Your task to perform on an android device: turn off notifications settings in the gmail app Image 0: 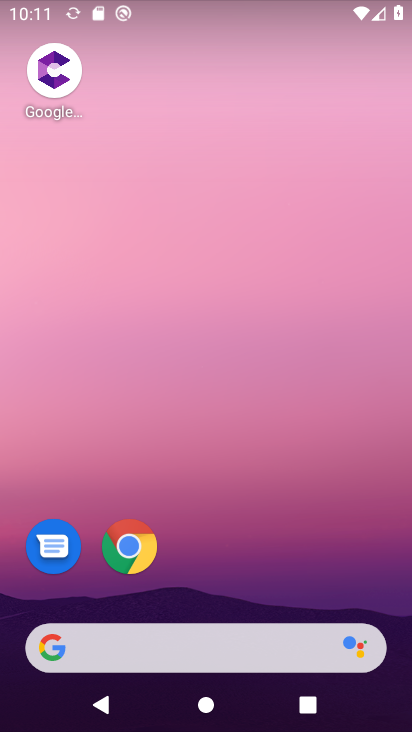
Step 0: drag from (397, 646) to (345, 126)
Your task to perform on an android device: turn off notifications settings in the gmail app Image 1: 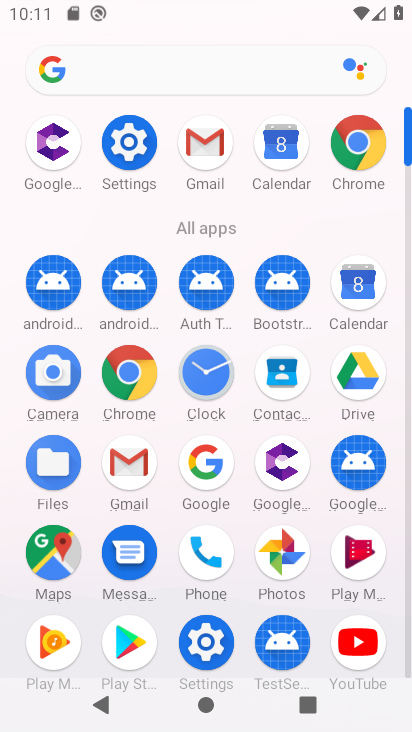
Step 1: click (407, 660)
Your task to perform on an android device: turn off notifications settings in the gmail app Image 2: 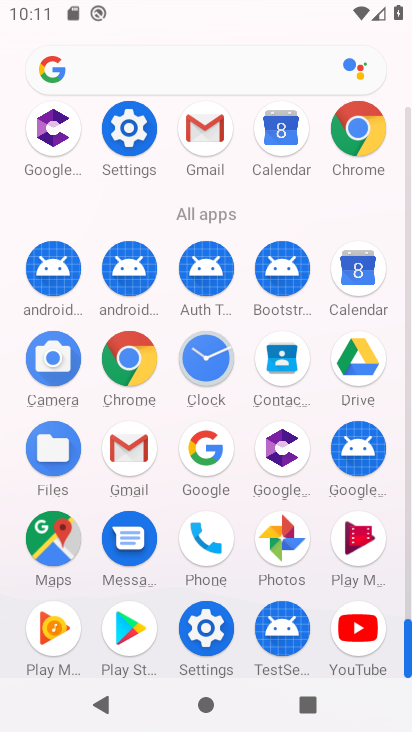
Step 2: click (126, 445)
Your task to perform on an android device: turn off notifications settings in the gmail app Image 3: 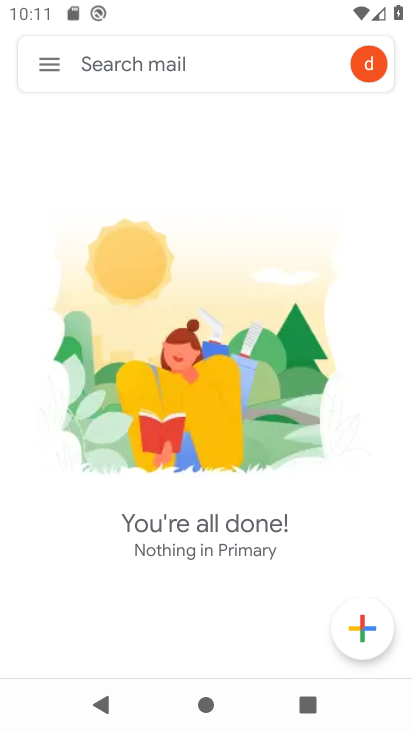
Step 3: click (47, 59)
Your task to perform on an android device: turn off notifications settings in the gmail app Image 4: 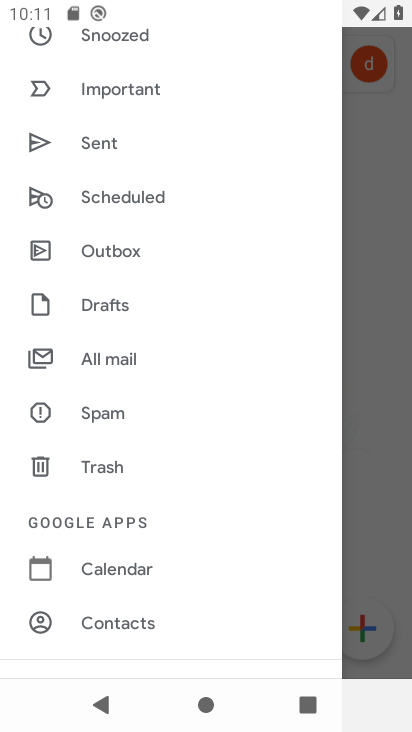
Step 4: drag from (258, 203) to (171, 493)
Your task to perform on an android device: turn off notifications settings in the gmail app Image 5: 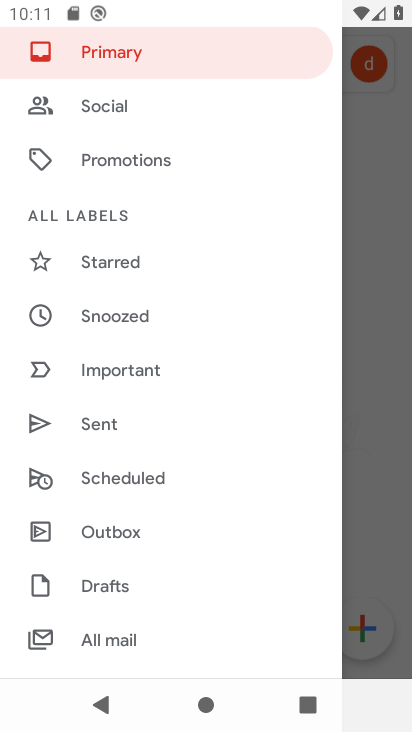
Step 5: drag from (171, 493) to (217, 64)
Your task to perform on an android device: turn off notifications settings in the gmail app Image 6: 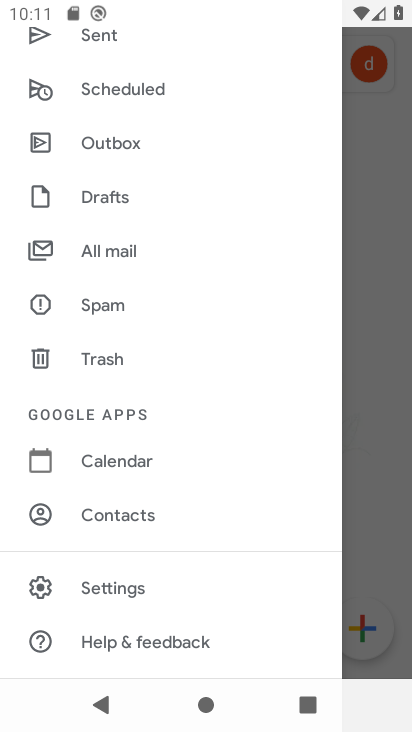
Step 6: click (107, 593)
Your task to perform on an android device: turn off notifications settings in the gmail app Image 7: 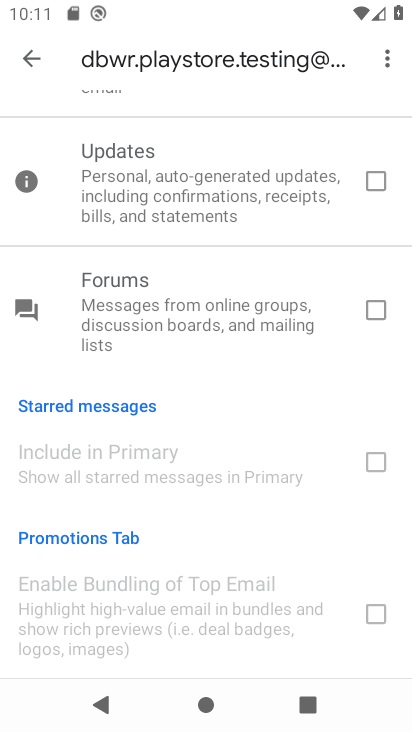
Step 7: press back button
Your task to perform on an android device: turn off notifications settings in the gmail app Image 8: 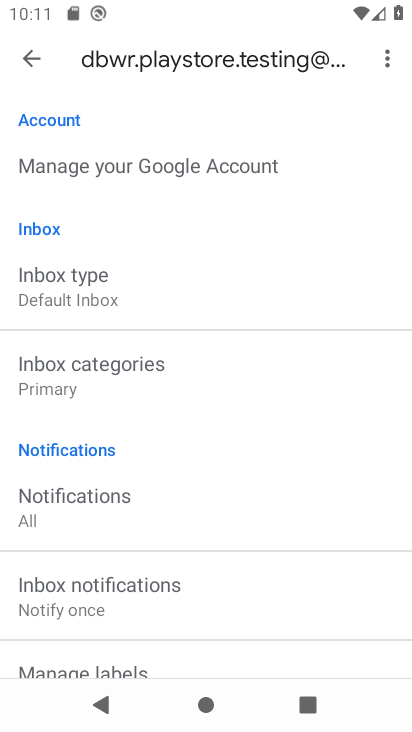
Step 8: drag from (206, 597) to (258, 154)
Your task to perform on an android device: turn off notifications settings in the gmail app Image 9: 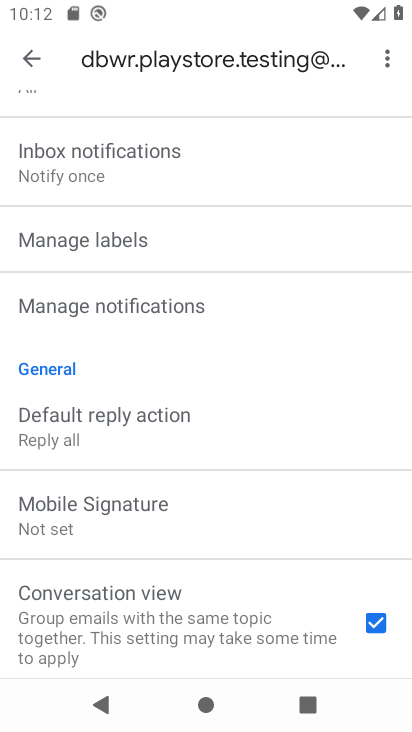
Step 9: click (95, 306)
Your task to perform on an android device: turn off notifications settings in the gmail app Image 10: 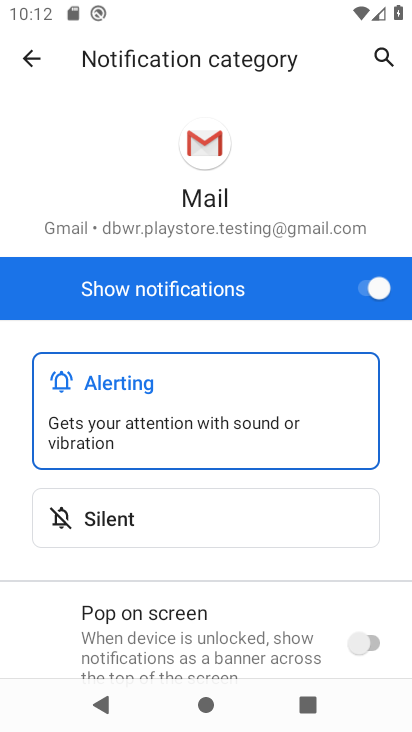
Step 10: click (359, 289)
Your task to perform on an android device: turn off notifications settings in the gmail app Image 11: 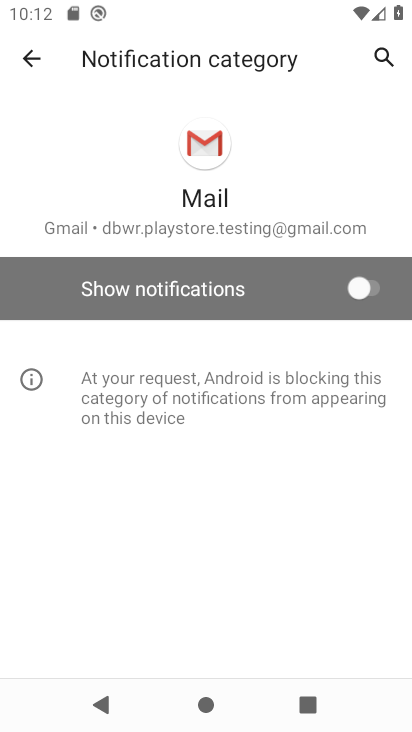
Step 11: task complete